Your task to perform on an android device: Go to battery settings Image 0: 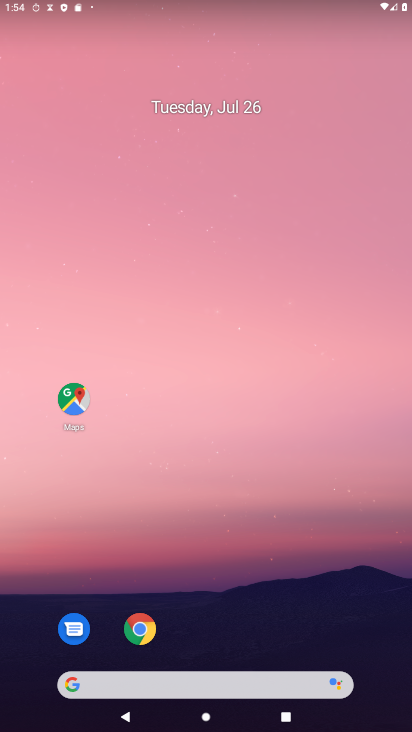
Step 0: drag from (217, 577) to (323, 125)
Your task to perform on an android device: Go to battery settings Image 1: 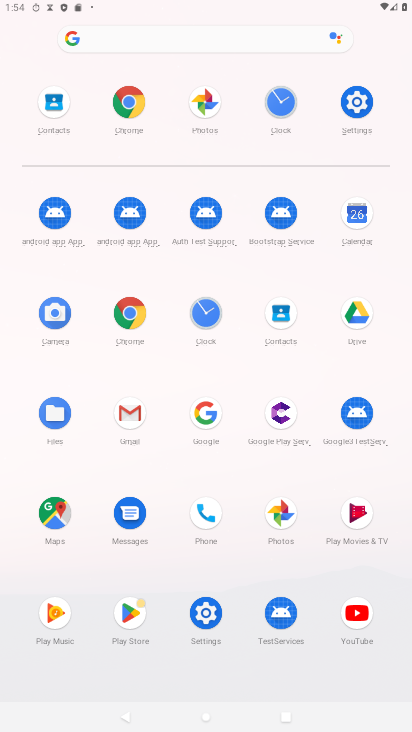
Step 1: click (360, 109)
Your task to perform on an android device: Go to battery settings Image 2: 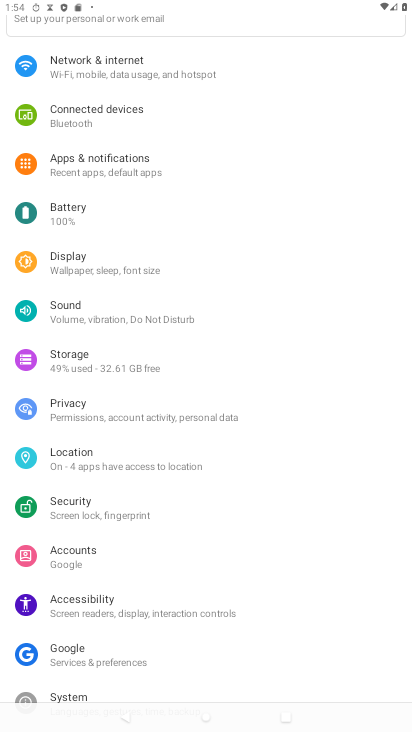
Step 2: drag from (150, 130) to (178, 408)
Your task to perform on an android device: Go to battery settings Image 3: 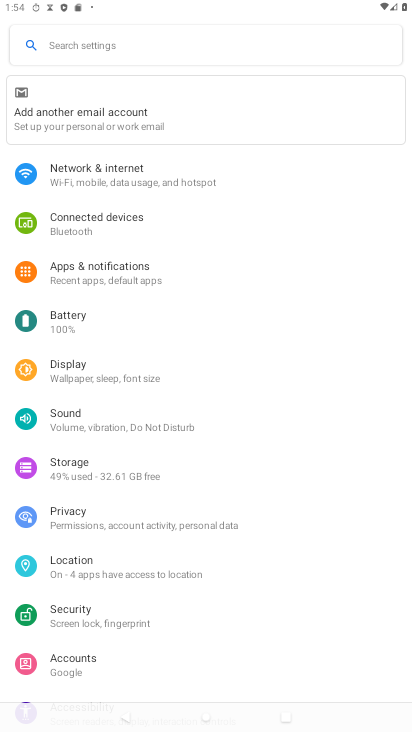
Step 3: click (86, 333)
Your task to perform on an android device: Go to battery settings Image 4: 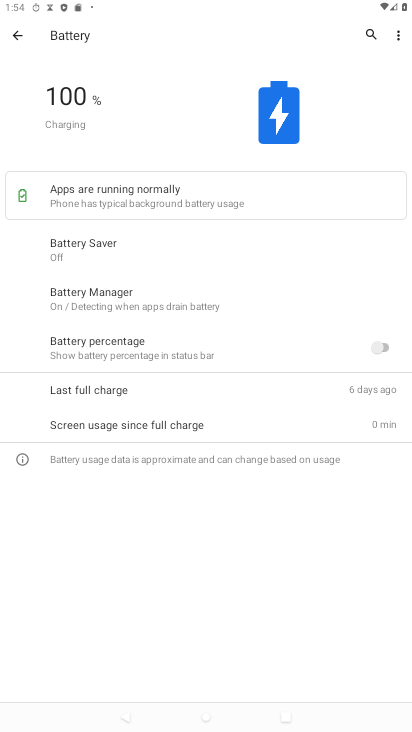
Step 4: task complete